Your task to perform on an android device: Open ESPN.com Image 0: 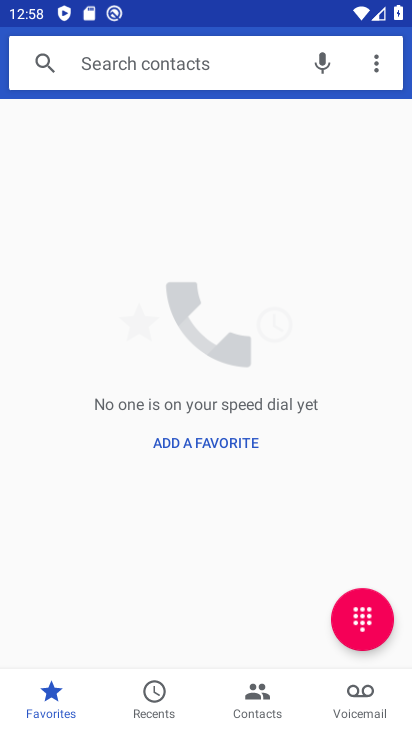
Step 0: press home button
Your task to perform on an android device: Open ESPN.com Image 1: 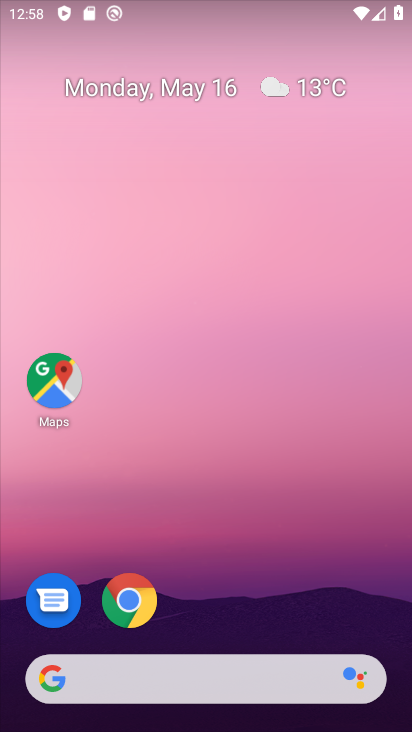
Step 1: click (142, 609)
Your task to perform on an android device: Open ESPN.com Image 2: 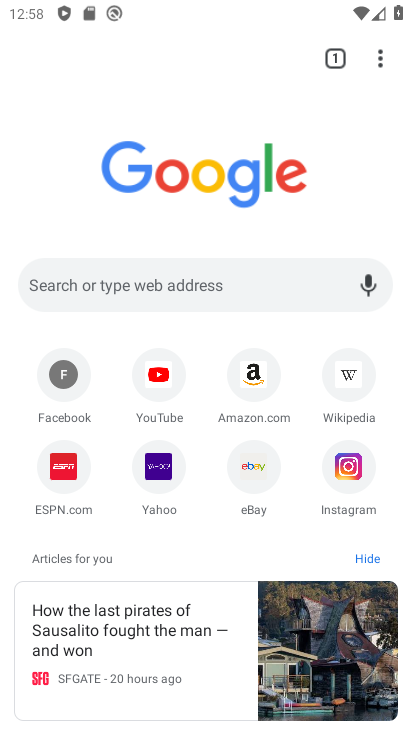
Step 2: click (64, 470)
Your task to perform on an android device: Open ESPN.com Image 3: 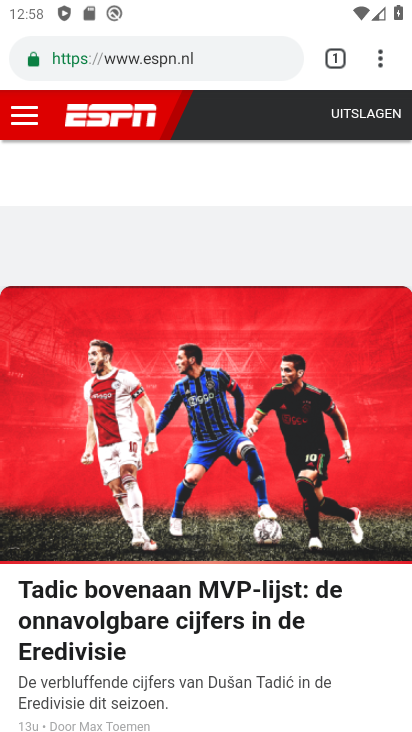
Step 3: drag from (85, 659) to (73, 283)
Your task to perform on an android device: Open ESPN.com Image 4: 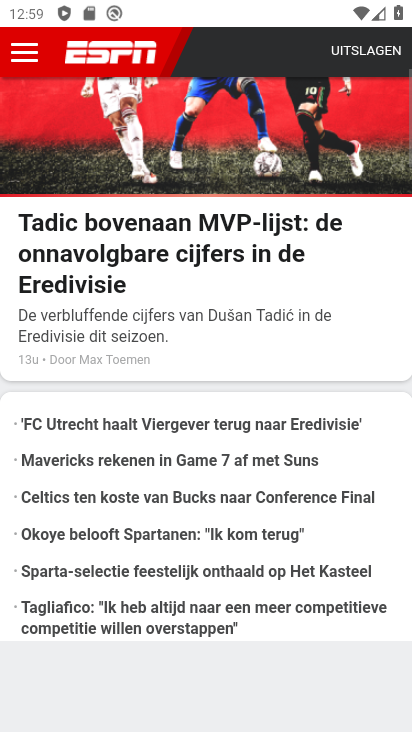
Step 4: drag from (273, 210) to (223, 633)
Your task to perform on an android device: Open ESPN.com Image 5: 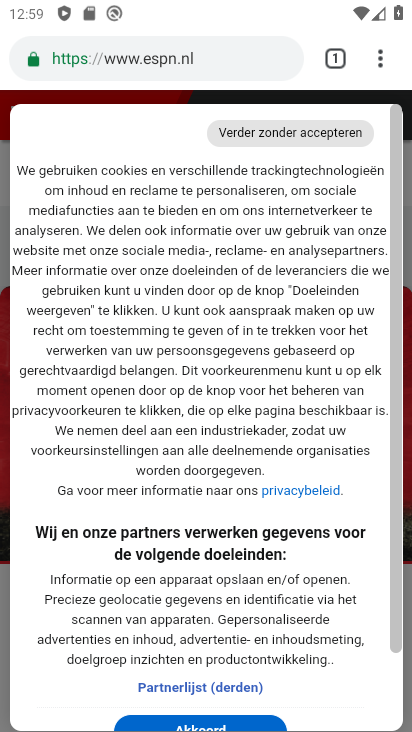
Step 5: drag from (244, 688) to (200, 230)
Your task to perform on an android device: Open ESPN.com Image 6: 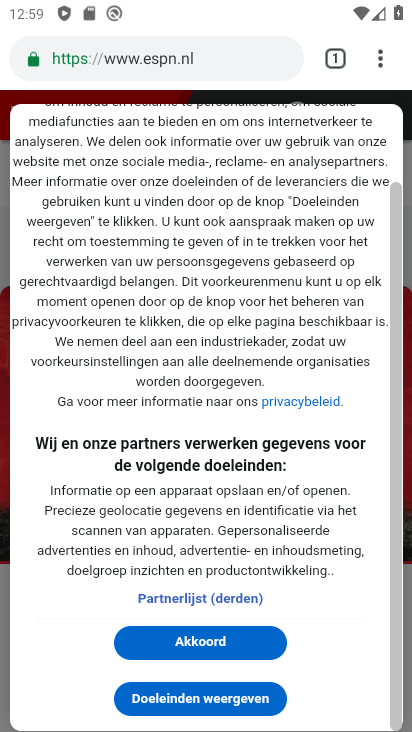
Step 6: click (200, 634)
Your task to perform on an android device: Open ESPN.com Image 7: 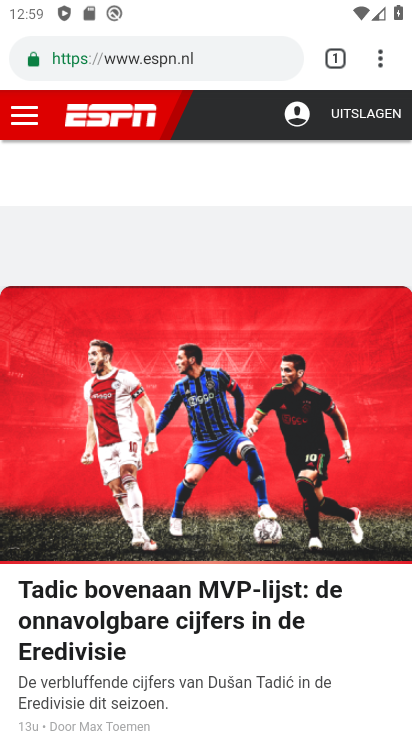
Step 7: task complete